Your task to perform on an android device: Open Reddit.com Image 0: 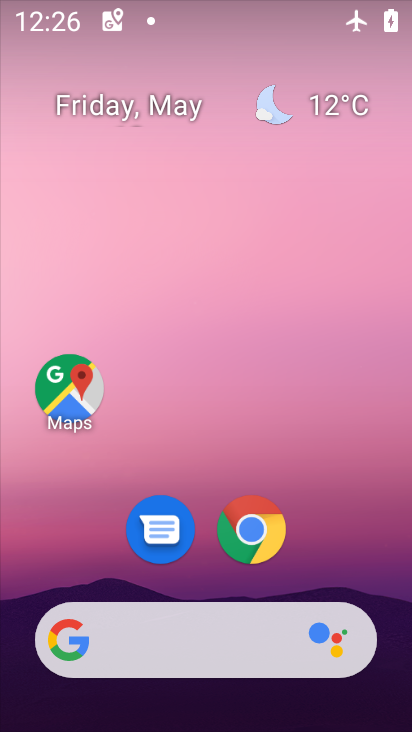
Step 0: drag from (309, 559) to (311, 301)
Your task to perform on an android device: Open Reddit.com Image 1: 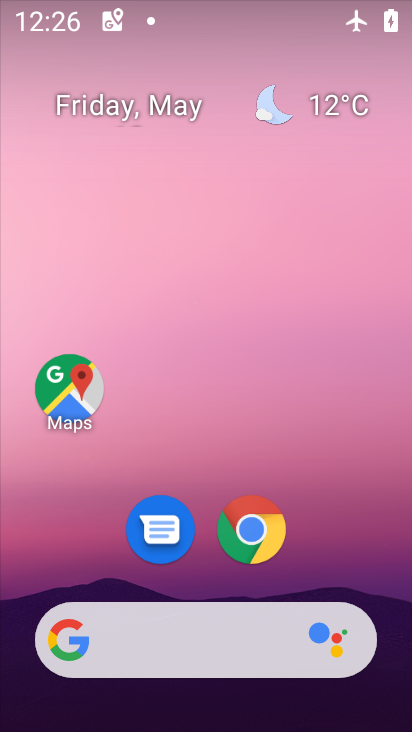
Step 1: drag from (297, 583) to (319, 303)
Your task to perform on an android device: Open Reddit.com Image 2: 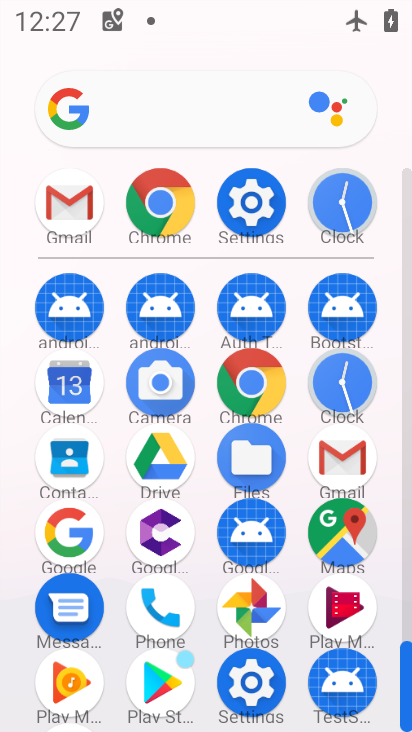
Step 2: click (151, 190)
Your task to perform on an android device: Open Reddit.com Image 3: 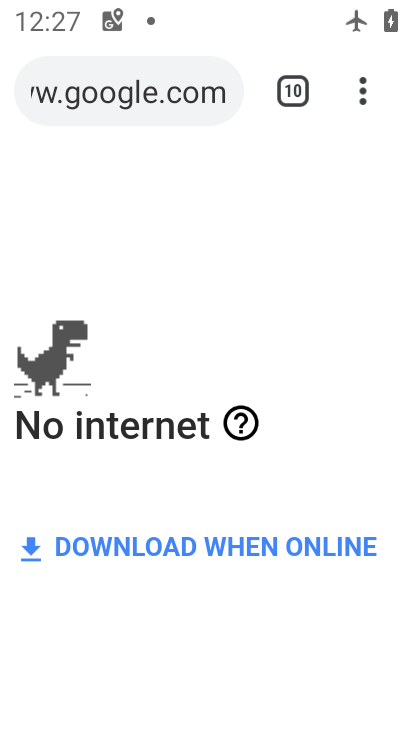
Step 3: click (351, 92)
Your task to perform on an android device: Open Reddit.com Image 4: 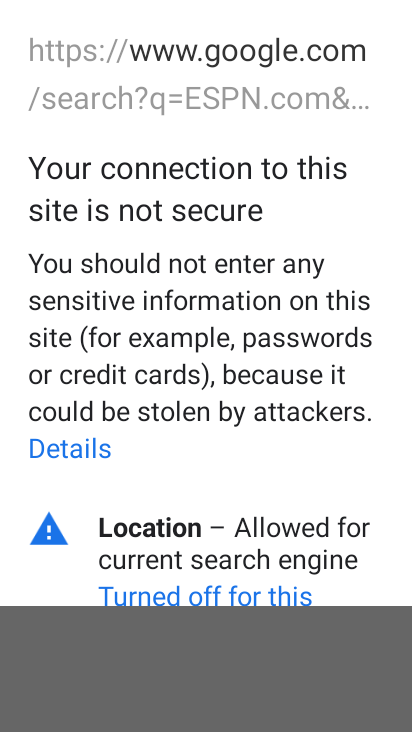
Step 4: press back button
Your task to perform on an android device: Open Reddit.com Image 5: 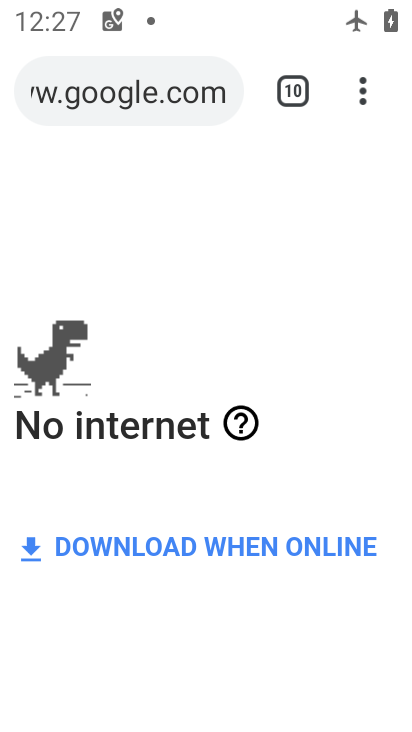
Step 5: click (345, 83)
Your task to perform on an android device: Open Reddit.com Image 6: 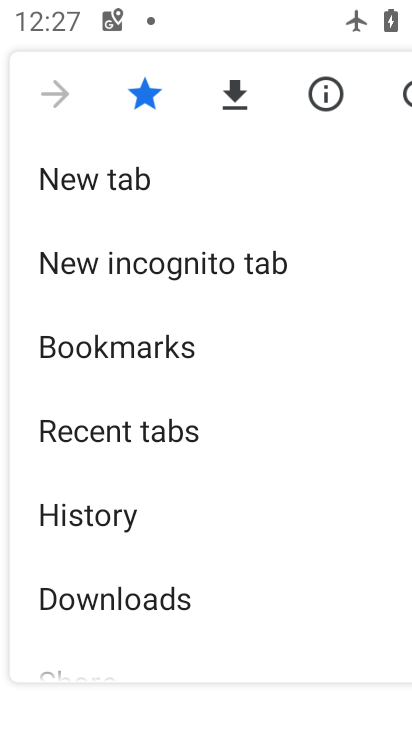
Step 6: click (135, 179)
Your task to perform on an android device: Open Reddit.com Image 7: 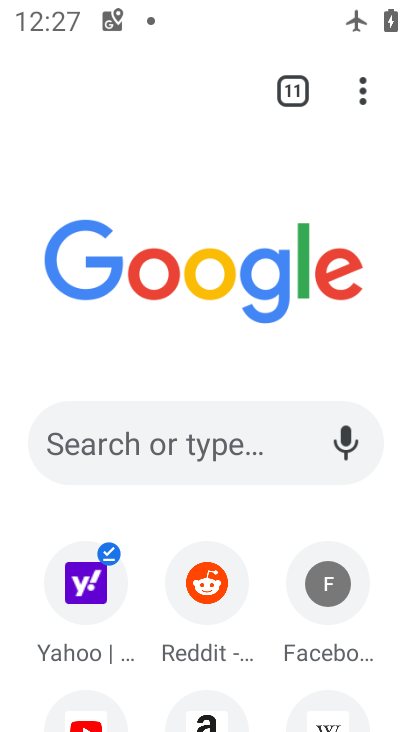
Step 7: click (199, 388)
Your task to perform on an android device: Open Reddit.com Image 8: 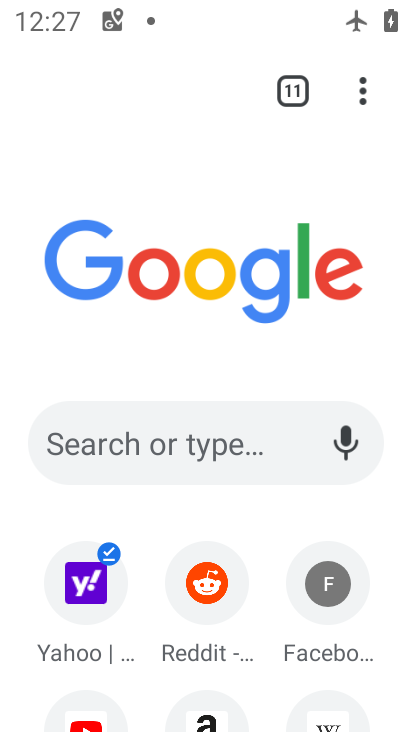
Step 8: click (211, 440)
Your task to perform on an android device: Open Reddit.com Image 9: 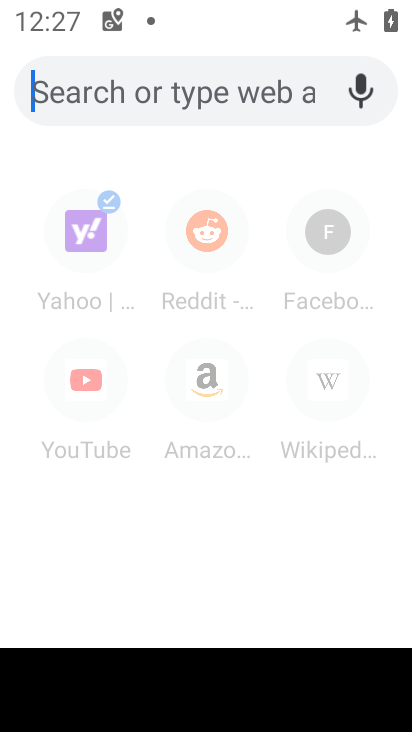
Step 9: type "Reddit.com"
Your task to perform on an android device: Open Reddit.com Image 10: 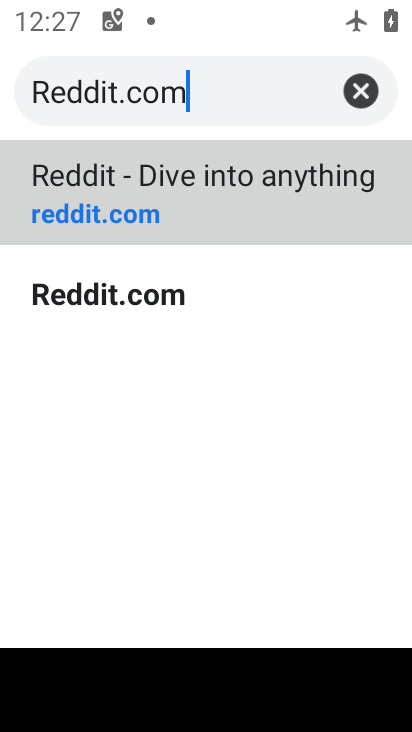
Step 10: click (142, 303)
Your task to perform on an android device: Open Reddit.com Image 11: 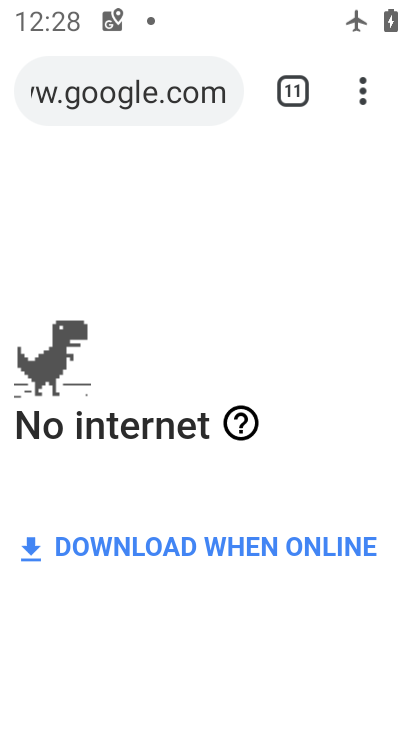
Step 11: task complete